Your task to perform on an android device: Open Chrome and go to settings Image 0: 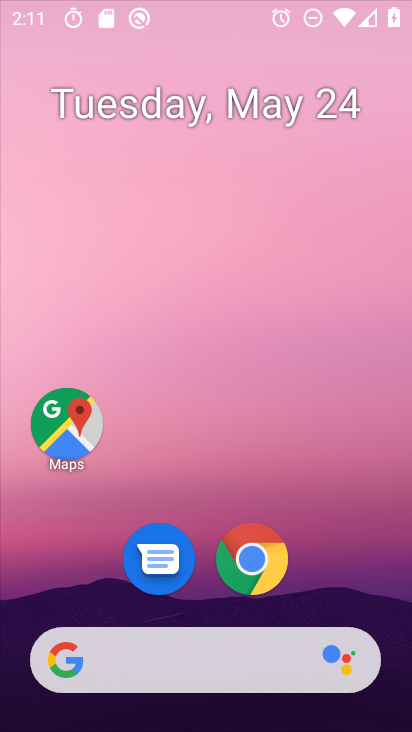
Step 0: click (251, 554)
Your task to perform on an android device: Open Chrome and go to settings Image 1: 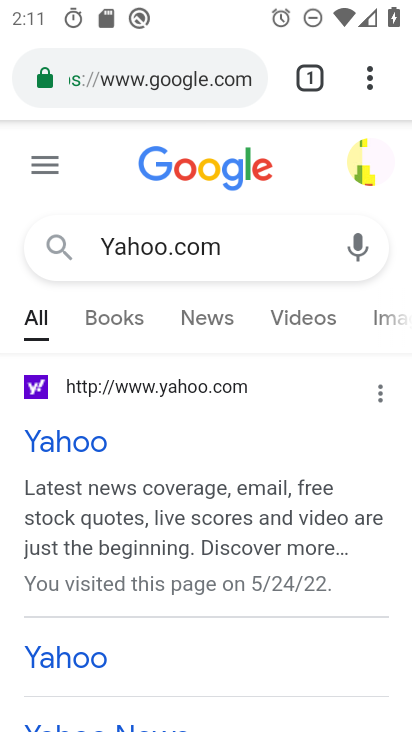
Step 1: click (373, 81)
Your task to perform on an android device: Open Chrome and go to settings Image 2: 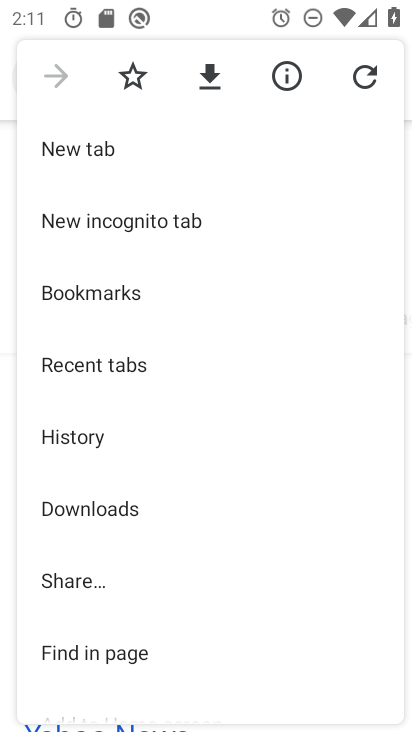
Step 2: drag from (221, 639) to (208, 278)
Your task to perform on an android device: Open Chrome and go to settings Image 3: 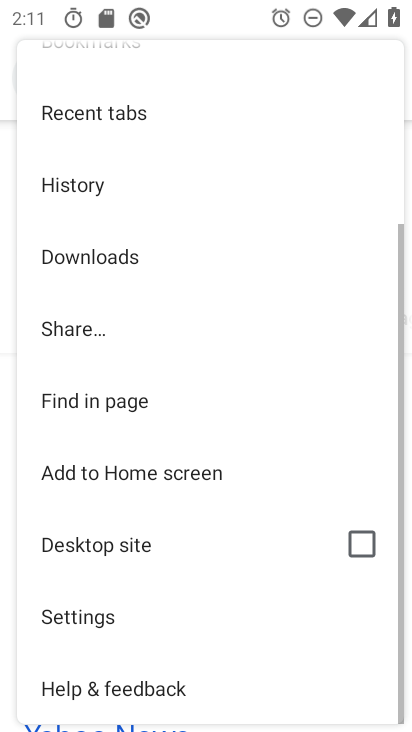
Step 3: click (71, 617)
Your task to perform on an android device: Open Chrome and go to settings Image 4: 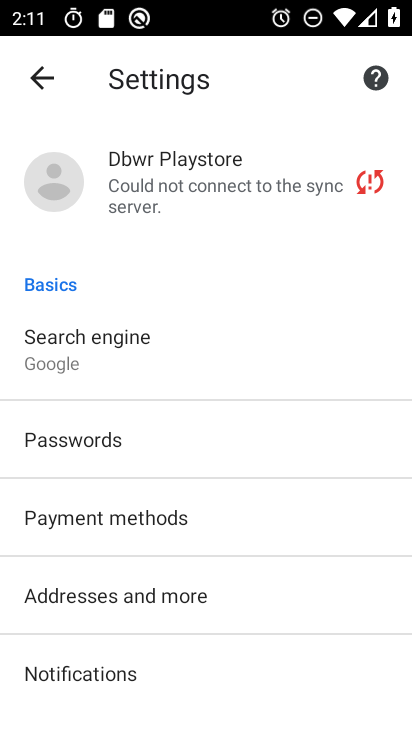
Step 4: task complete